Your task to perform on an android device: What is the news today? Image 0: 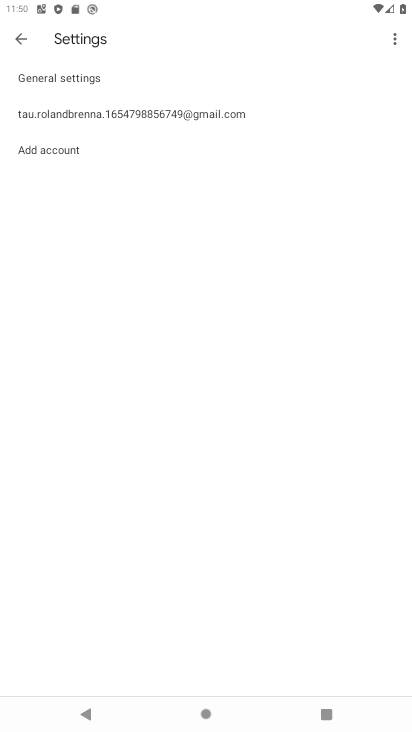
Step 0: press home button
Your task to perform on an android device: What is the news today? Image 1: 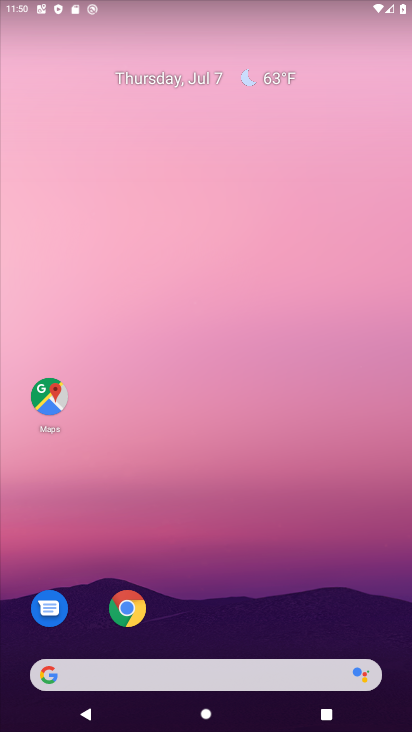
Step 1: click (190, 688)
Your task to perform on an android device: What is the news today? Image 2: 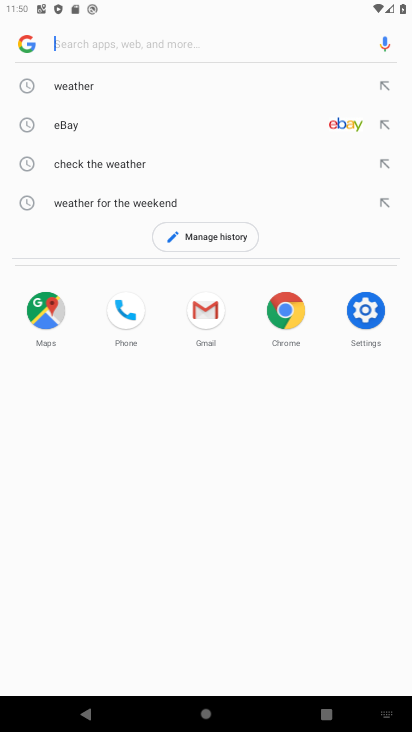
Step 2: click (180, 44)
Your task to perform on an android device: What is the news today? Image 3: 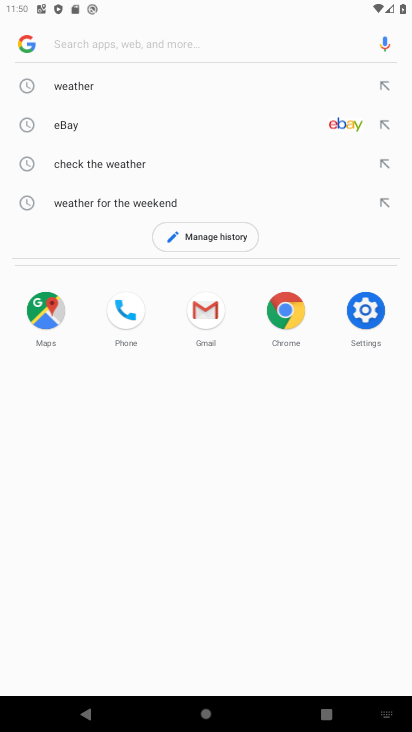
Step 3: type "news today"
Your task to perform on an android device: What is the news today? Image 4: 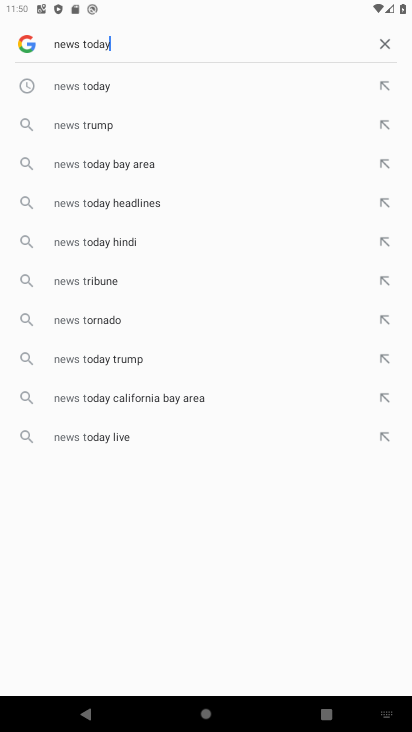
Step 4: type ""
Your task to perform on an android device: What is the news today? Image 5: 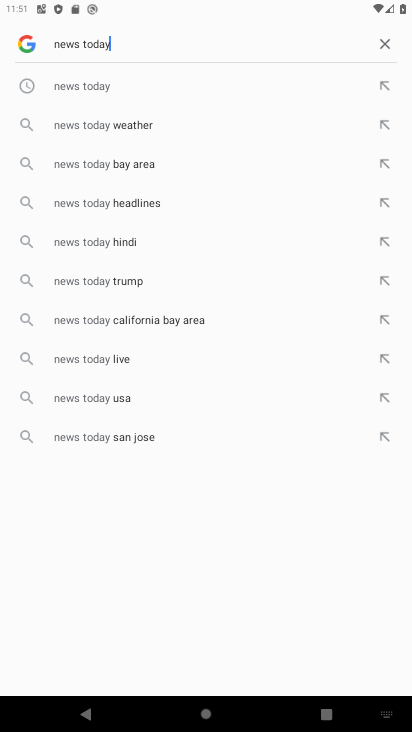
Step 5: click (88, 89)
Your task to perform on an android device: What is the news today? Image 6: 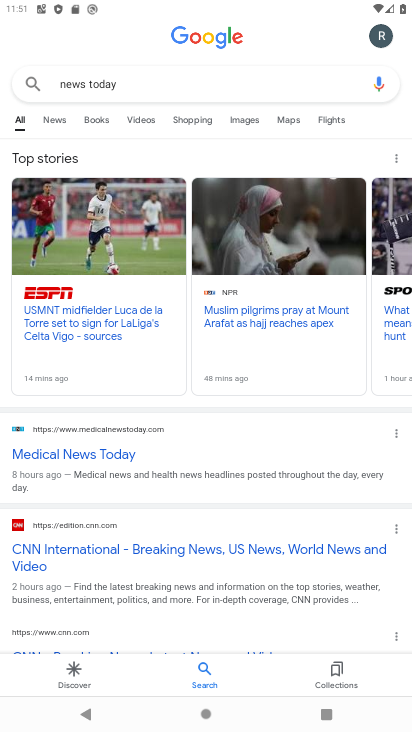
Step 6: task complete